Your task to perform on an android device: delete the emails in spam in the gmail app Image 0: 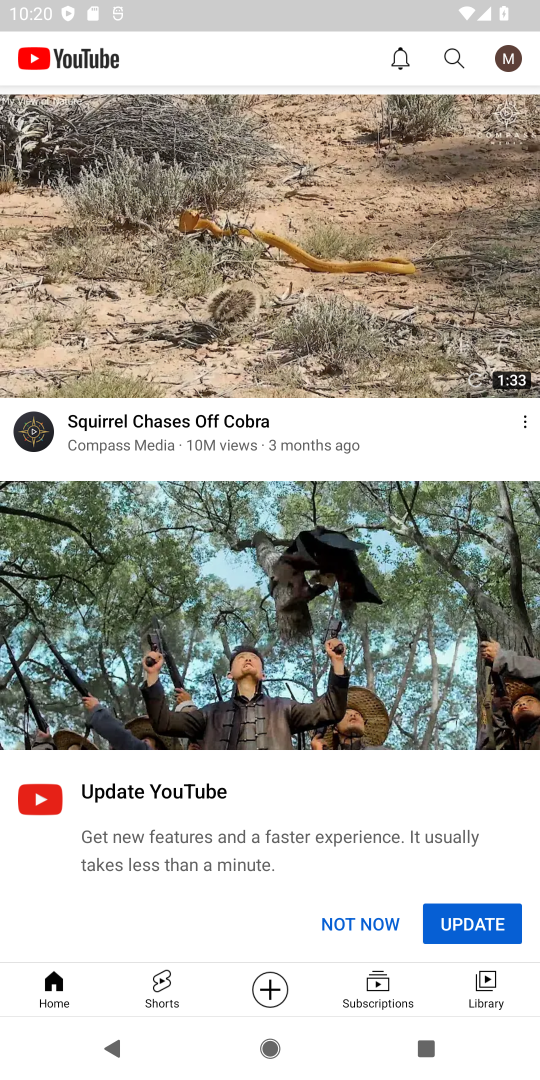
Step 0: press home button
Your task to perform on an android device: delete the emails in spam in the gmail app Image 1: 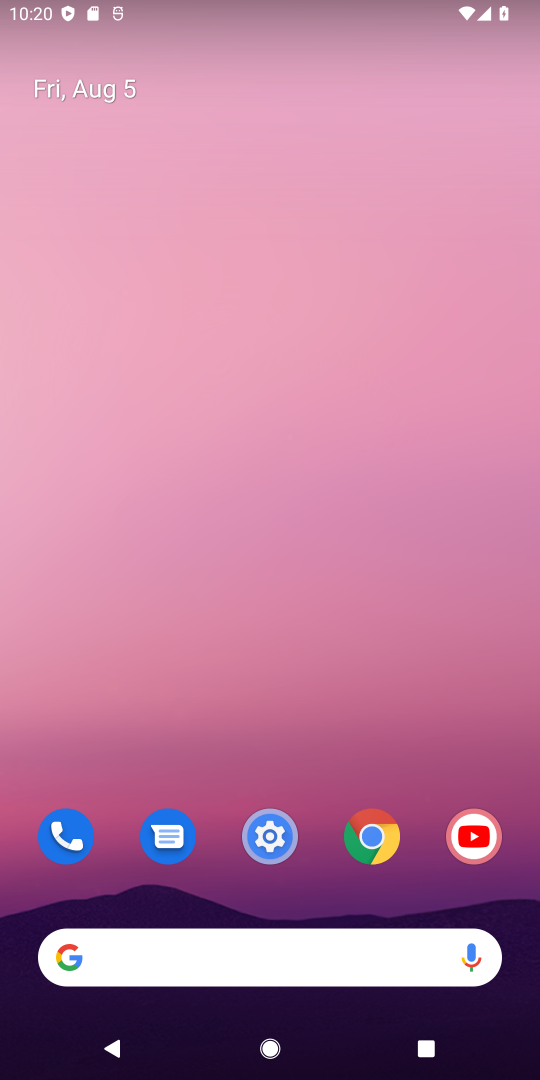
Step 1: drag from (297, 720) to (287, 61)
Your task to perform on an android device: delete the emails in spam in the gmail app Image 2: 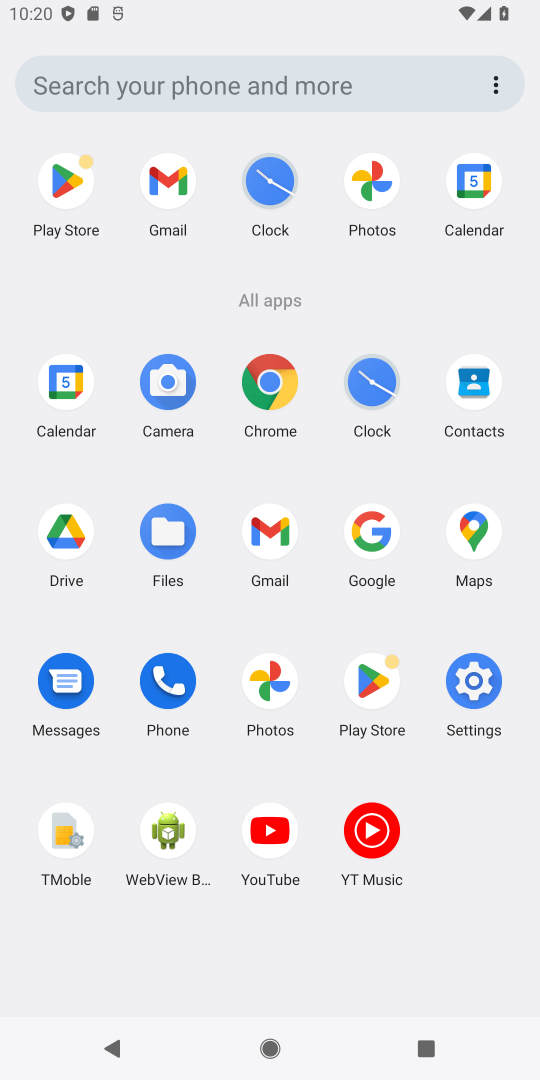
Step 2: click (273, 529)
Your task to perform on an android device: delete the emails in spam in the gmail app Image 3: 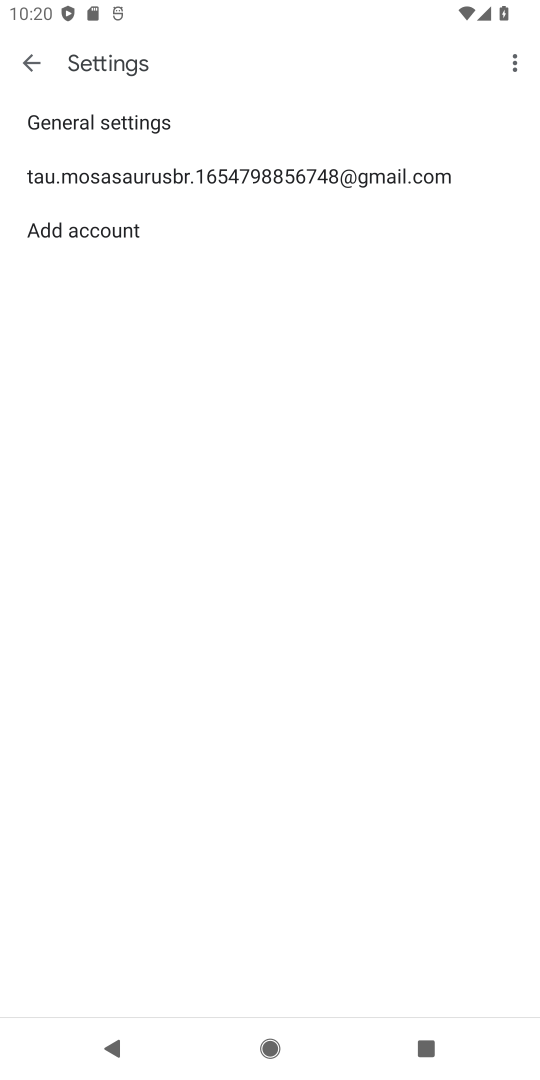
Step 3: click (27, 63)
Your task to perform on an android device: delete the emails in spam in the gmail app Image 4: 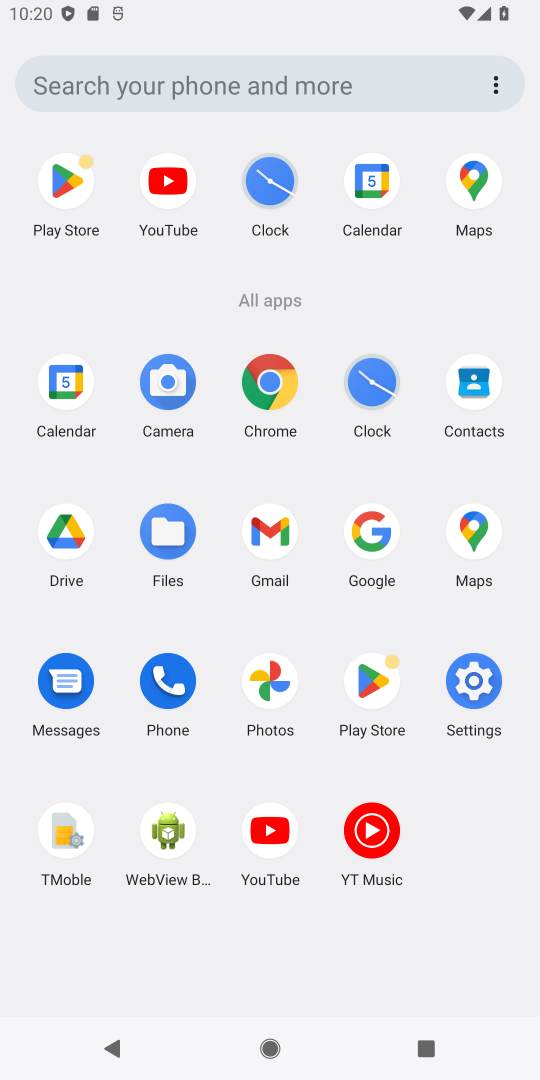
Step 4: click (279, 537)
Your task to perform on an android device: delete the emails in spam in the gmail app Image 5: 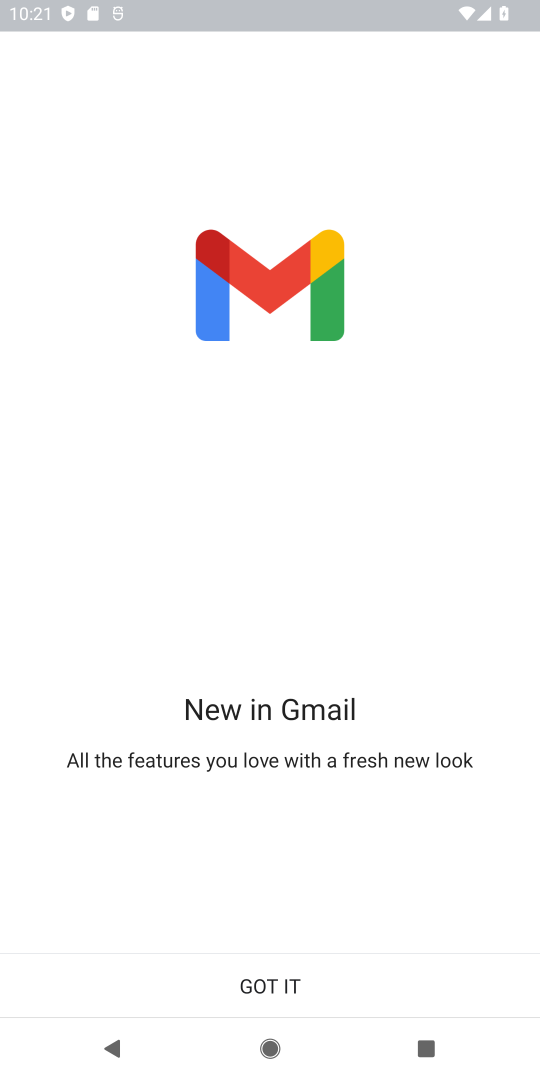
Step 5: click (273, 978)
Your task to perform on an android device: delete the emails in spam in the gmail app Image 6: 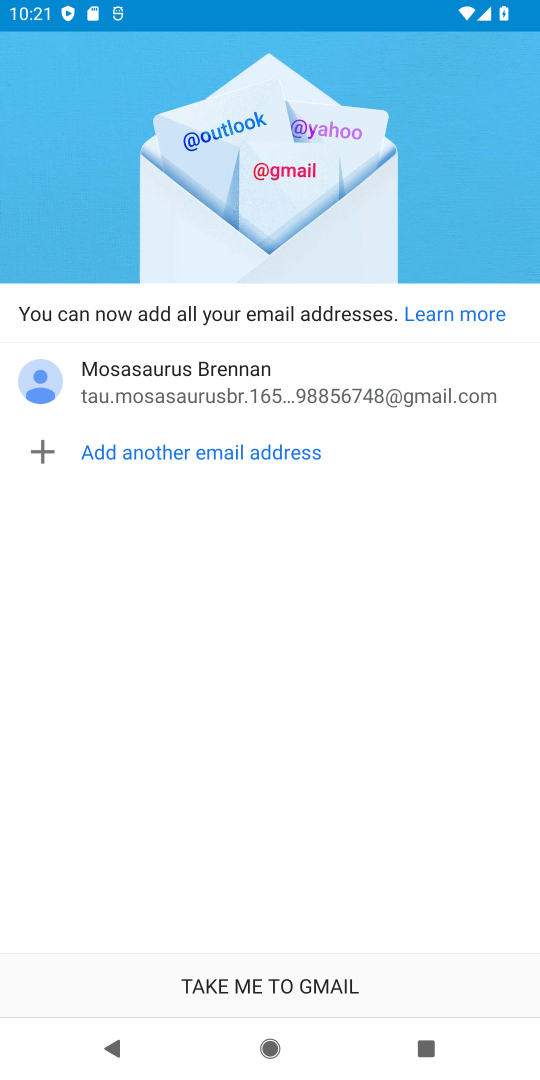
Step 6: click (273, 978)
Your task to perform on an android device: delete the emails in spam in the gmail app Image 7: 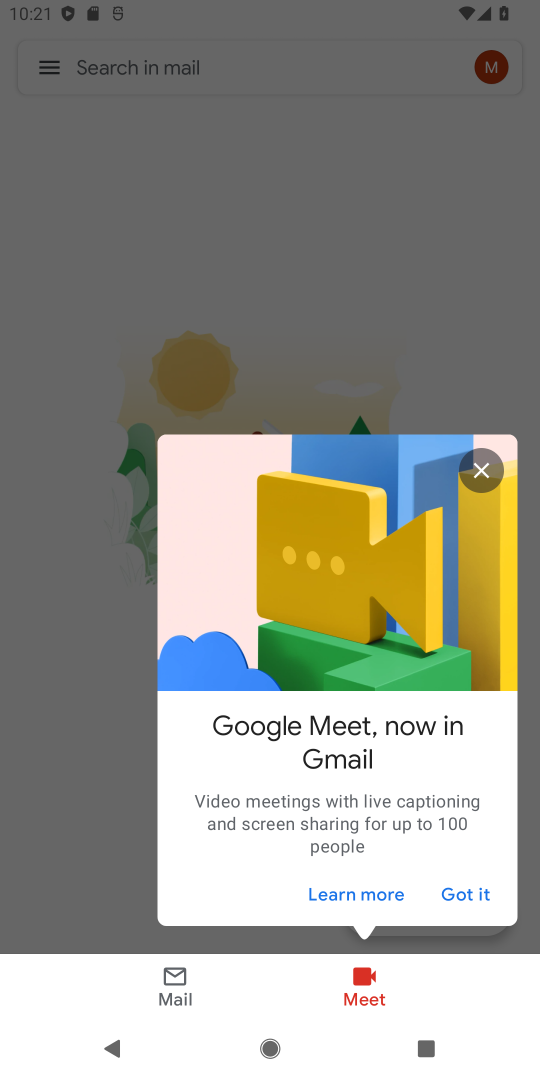
Step 7: click (460, 896)
Your task to perform on an android device: delete the emails in spam in the gmail app Image 8: 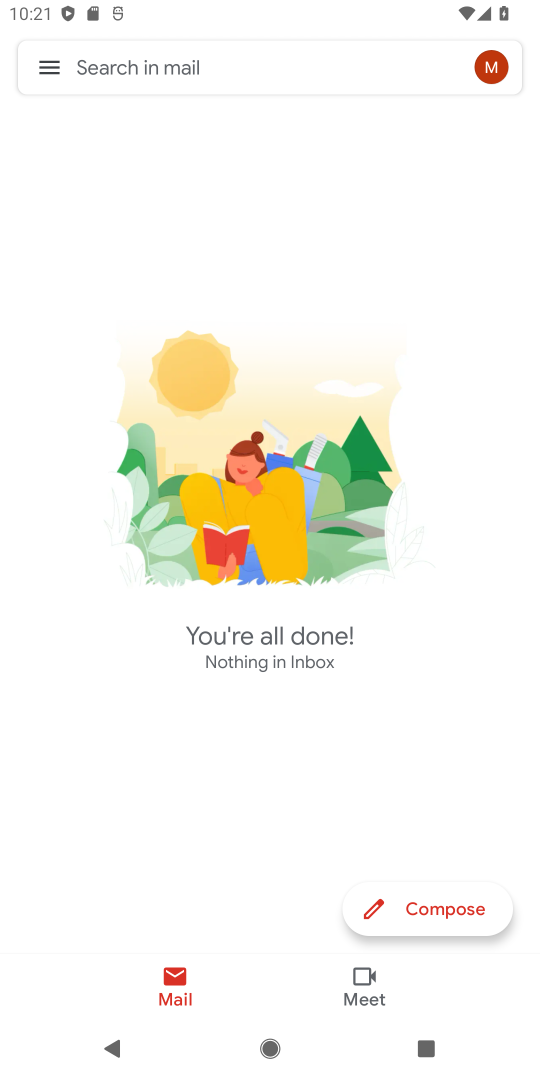
Step 8: click (46, 58)
Your task to perform on an android device: delete the emails in spam in the gmail app Image 9: 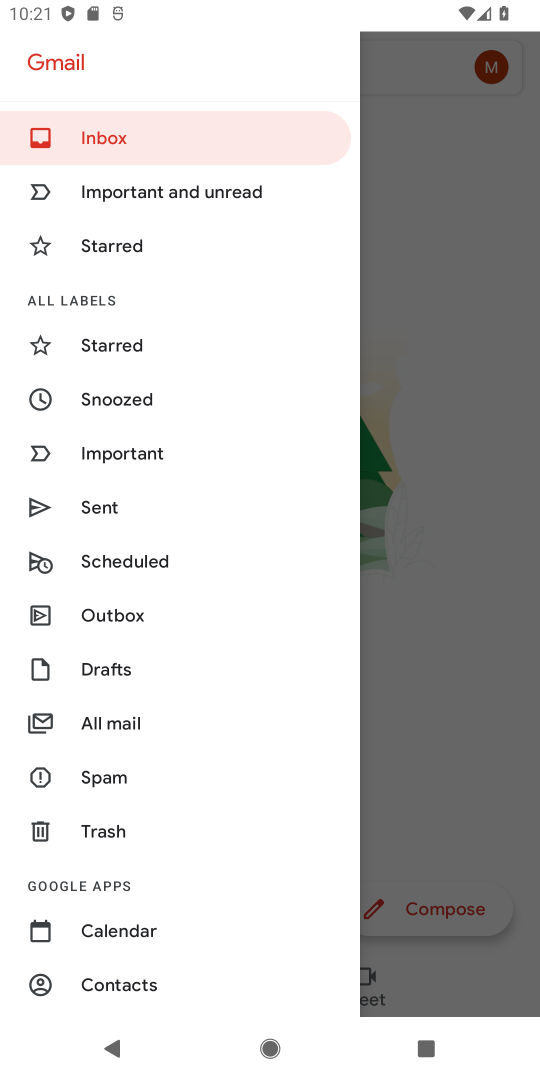
Step 9: click (101, 770)
Your task to perform on an android device: delete the emails in spam in the gmail app Image 10: 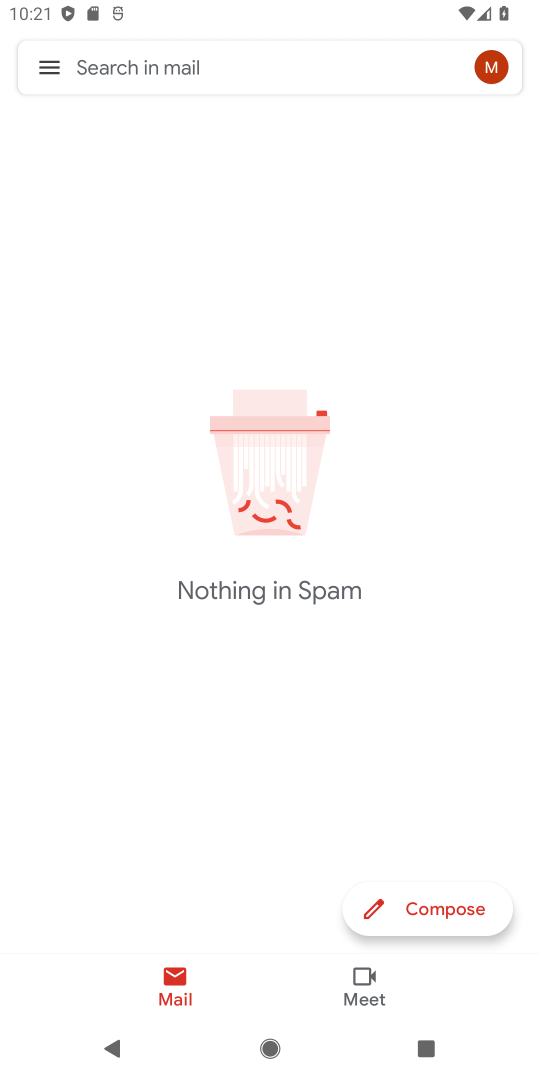
Step 10: task complete